Your task to perform on an android device: move an email to a new category in the gmail app Image 0: 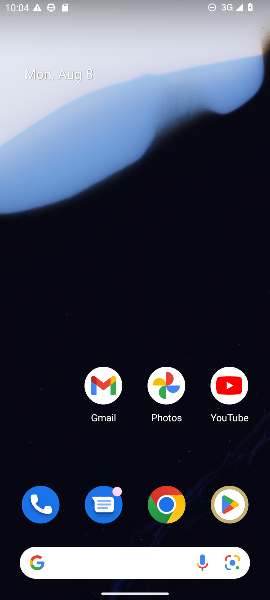
Step 0: click (105, 399)
Your task to perform on an android device: move an email to a new category in the gmail app Image 1: 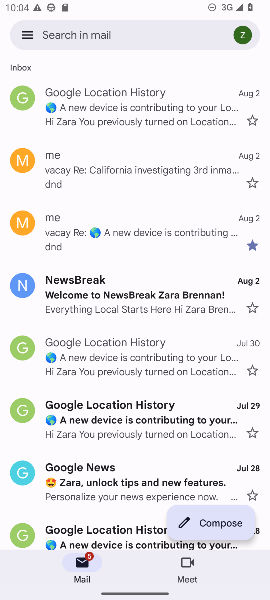
Step 1: click (27, 162)
Your task to perform on an android device: move an email to a new category in the gmail app Image 2: 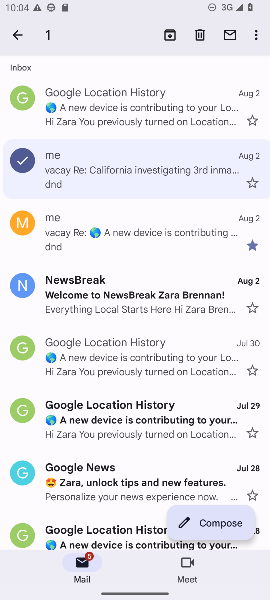
Step 2: click (247, 30)
Your task to perform on an android device: move an email to a new category in the gmail app Image 3: 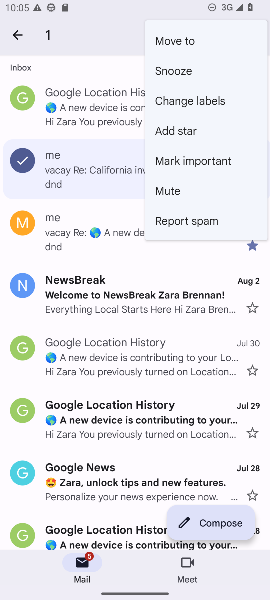
Step 3: click (189, 50)
Your task to perform on an android device: move an email to a new category in the gmail app Image 4: 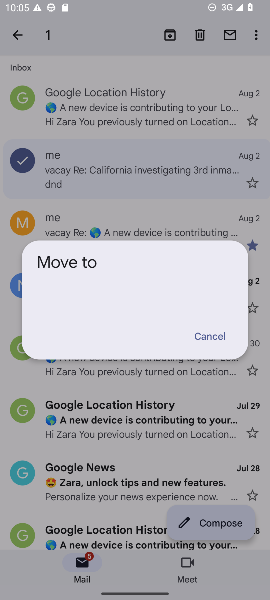
Step 4: click (209, 336)
Your task to perform on an android device: move an email to a new category in the gmail app Image 5: 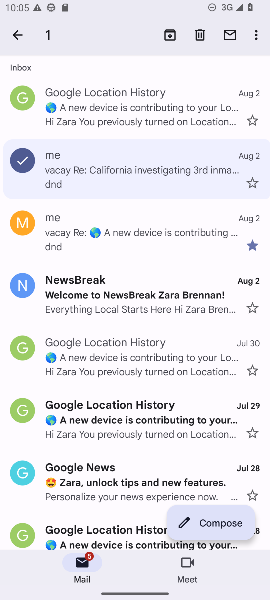
Step 5: click (254, 33)
Your task to perform on an android device: move an email to a new category in the gmail app Image 6: 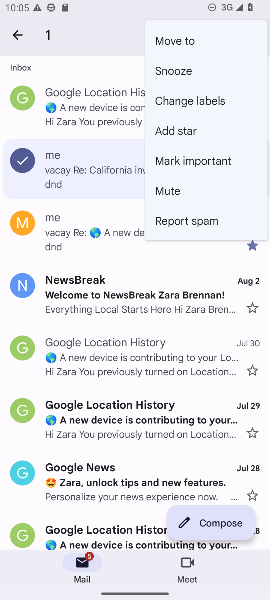
Step 6: click (200, 106)
Your task to perform on an android device: move an email to a new category in the gmail app Image 7: 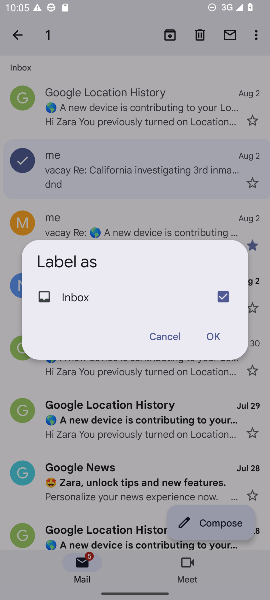
Step 7: click (212, 290)
Your task to perform on an android device: move an email to a new category in the gmail app Image 8: 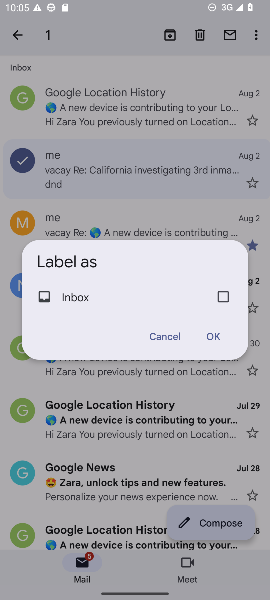
Step 8: click (211, 338)
Your task to perform on an android device: move an email to a new category in the gmail app Image 9: 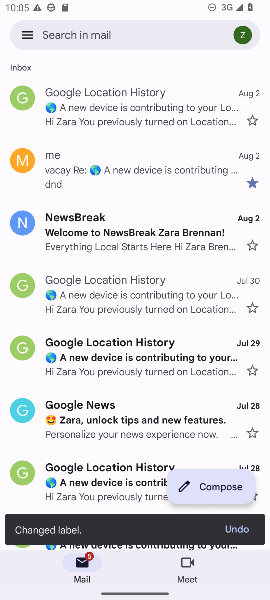
Step 9: task complete